Your task to perform on an android device: Open calendar and show me the first week of next month Image 0: 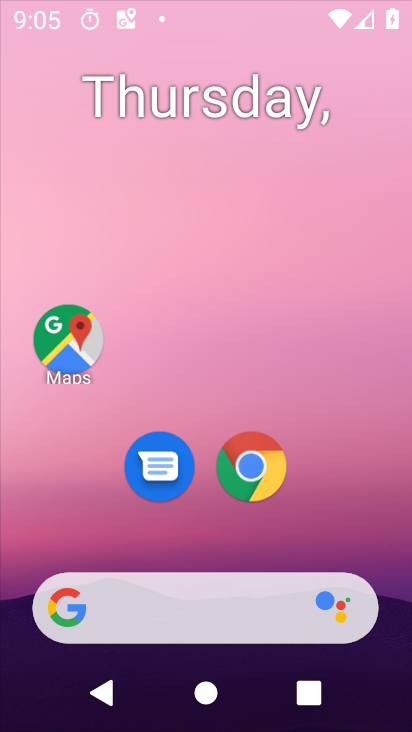
Step 0: press home button
Your task to perform on an android device: Open calendar and show me the first week of next month Image 1: 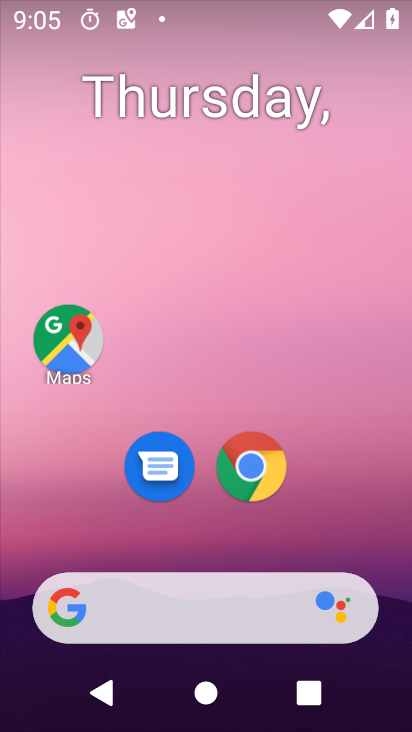
Step 1: press home button
Your task to perform on an android device: Open calendar and show me the first week of next month Image 2: 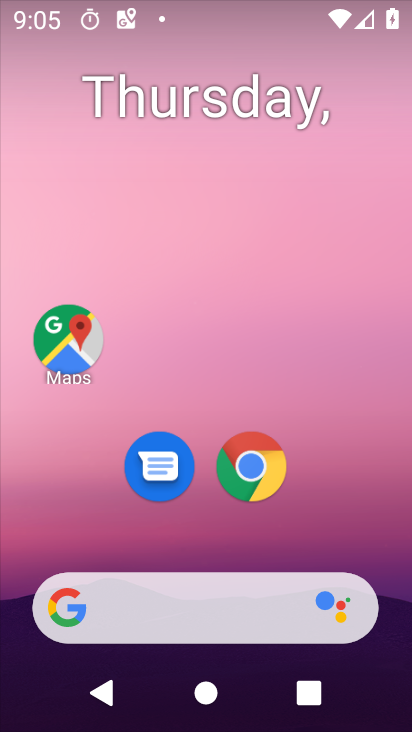
Step 2: drag from (326, 544) to (332, 110)
Your task to perform on an android device: Open calendar and show me the first week of next month Image 3: 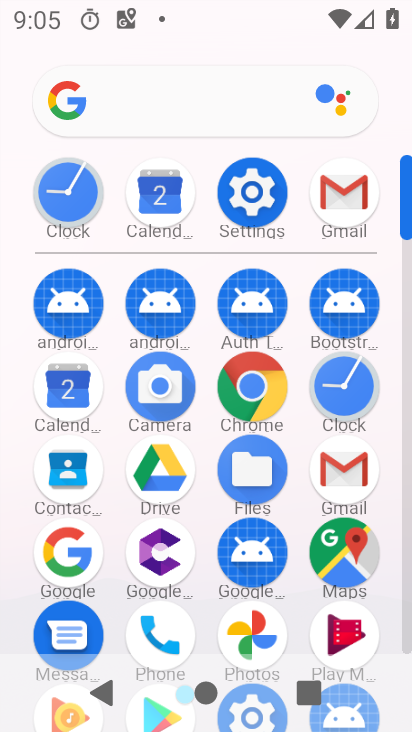
Step 3: click (65, 409)
Your task to perform on an android device: Open calendar and show me the first week of next month Image 4: 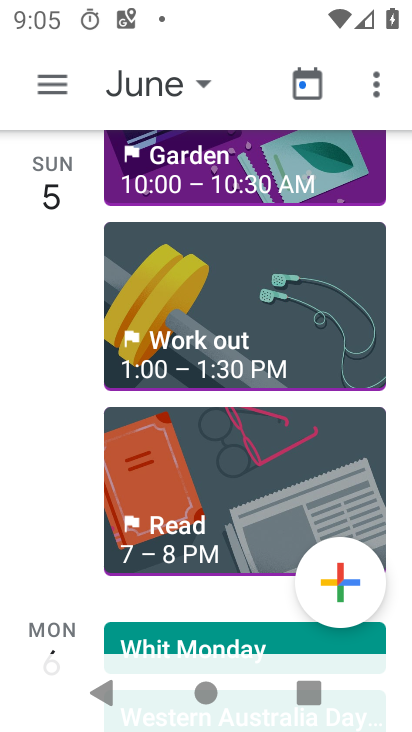
Step 4: click (200, 83)
Your task to perform on an android device: Open calendar and show me the first week of next month Image 5: 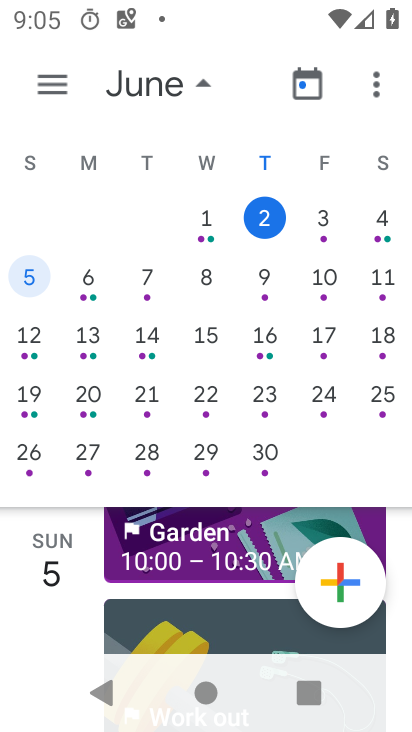
Step 5: drag from (330, 310) to (22, 292)
Your task to perform on an android device: Open calendar and show me the first week of next month Image 6: 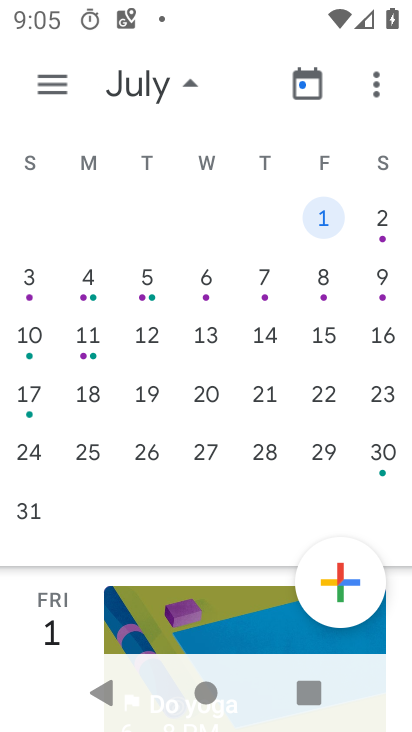
Step 6: click (325, 209)
Your task to perform on an android device: Open calendar and show me the first week of next month Image 7: 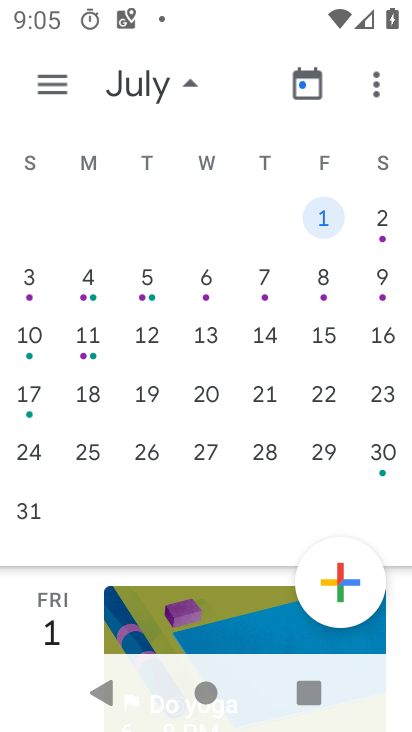
Step 7: click (386, 222)
Your task to perform on an android device: Open calendar and show me the first week of next month Image 8: 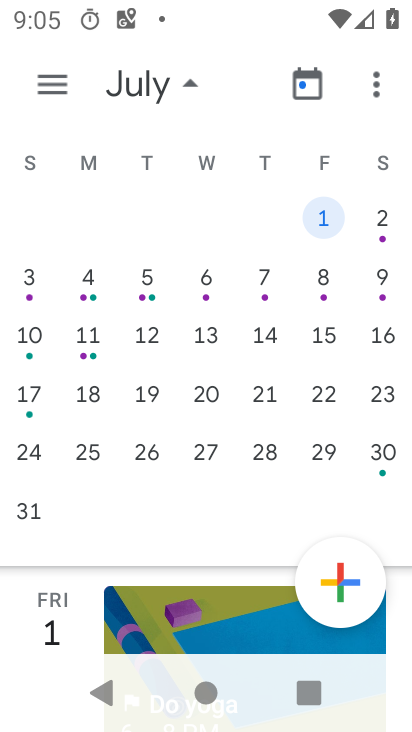
Step 8: click (330, 220)
Your task to perform on an android device: Open calendar and show me the first week of next month Image 9: 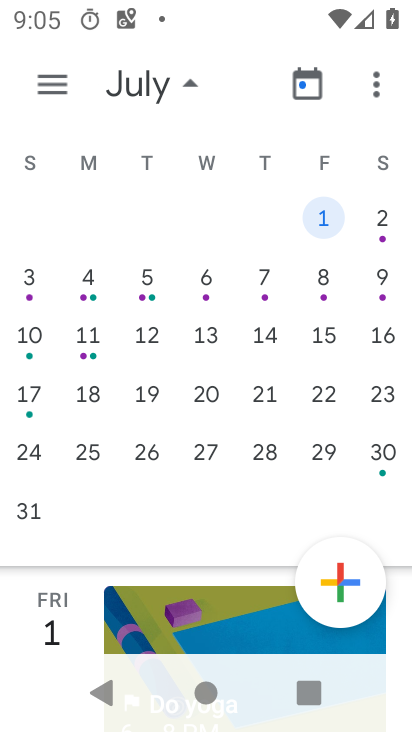
Step 9: click (189, 93)
Your task to perform on an android device: Open calendar and show me the first week of next month Image 10: 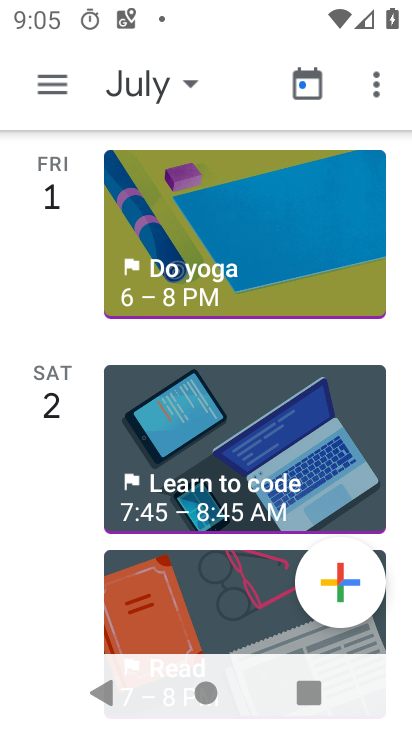
Step 10: task complete